Your task to perform on an android device: change the clock style Image 0: 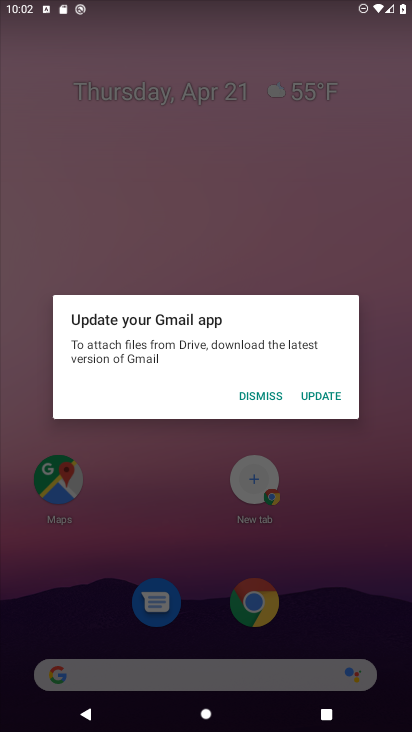
Step 0: press home button
Your task to perform on an android device: change the clock style Image 1: 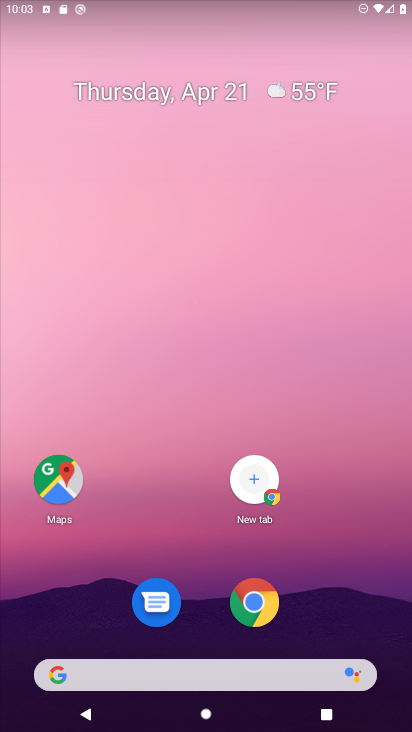
Step 1: drag from (204, 637) to (221, 166)
Your task to perform on an android device: change the clock style Image 2: 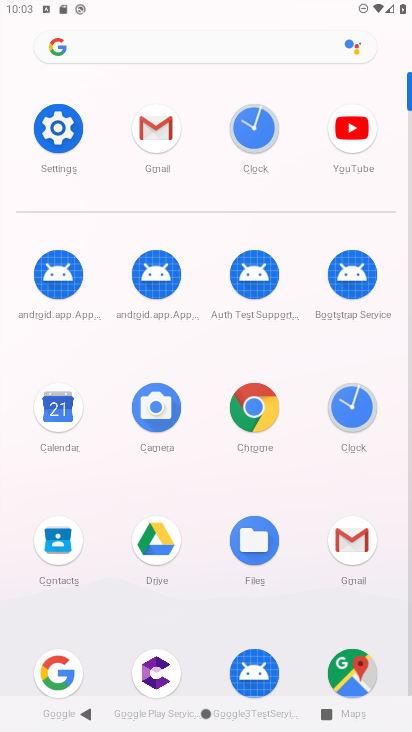
Step 2: click (360, 435)
Your task to perform on an android device: change the clock style Image 3: 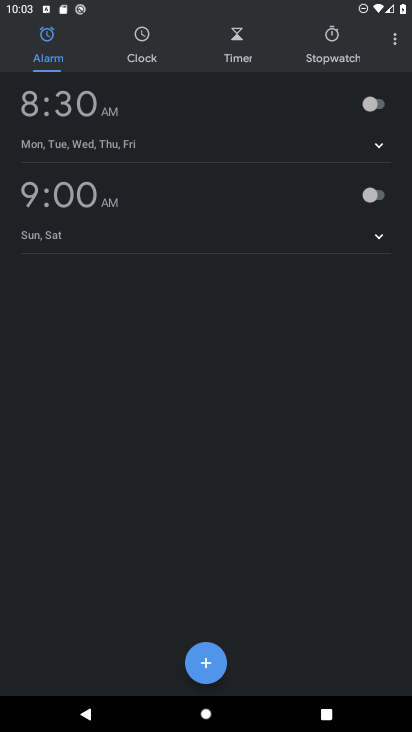
Step 3: click (397, 38)
Your task to perform on an android device: change the clock style Image 4: 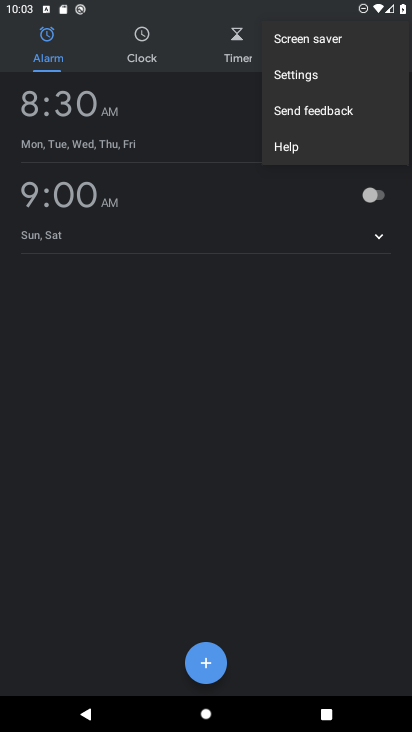
Step 4: click (310, 79)
Your task to perform on an android device: change the clock style Image 5: 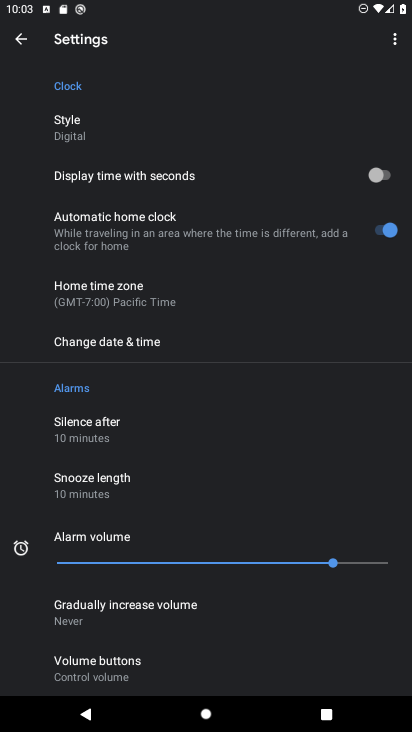
Step 5: click (138, 138)
Your task to perform on an android device: change the clock style Image 6: 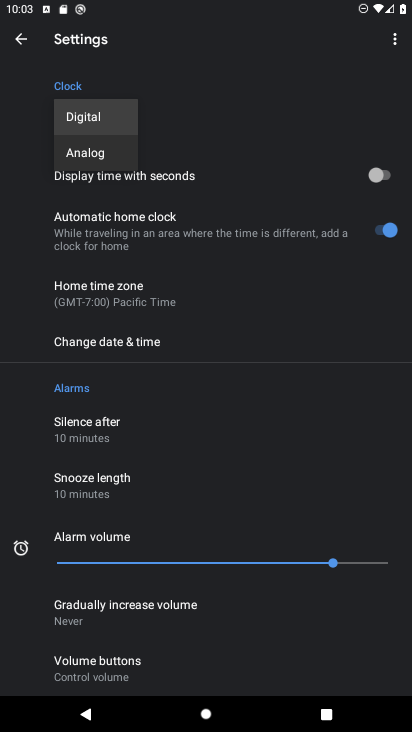
Step 6: click (115, 153)
Your task to perform on an android device: change the clock style Image 7: 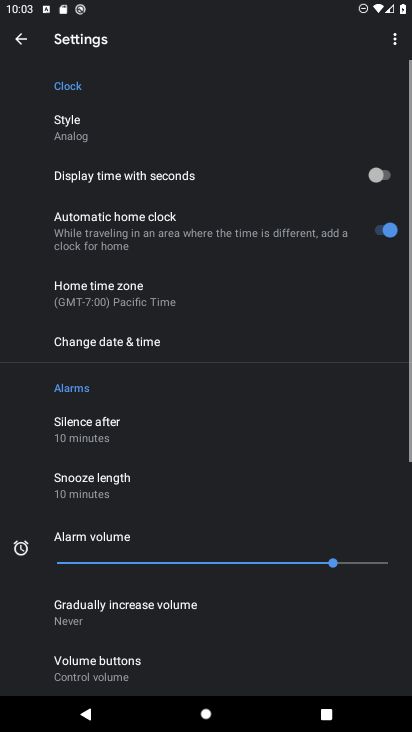
Step 7: task complete